Your task to perform on an android device: check the backup settings in the google photos Image 0: 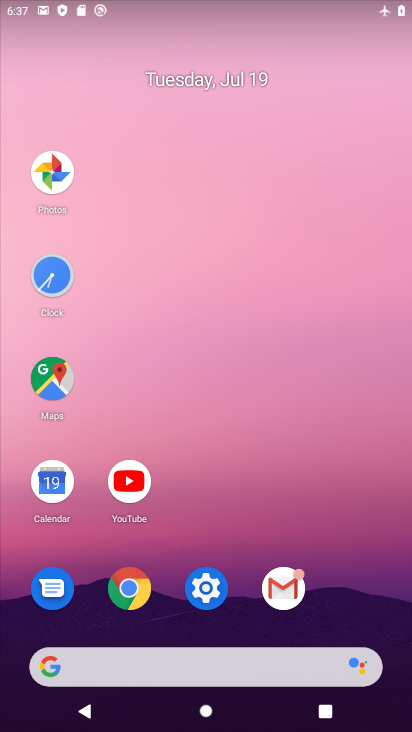
Step 0: click (46, 171)
Your task to perform on an android device: check the backup settings in the google photos Image 1: 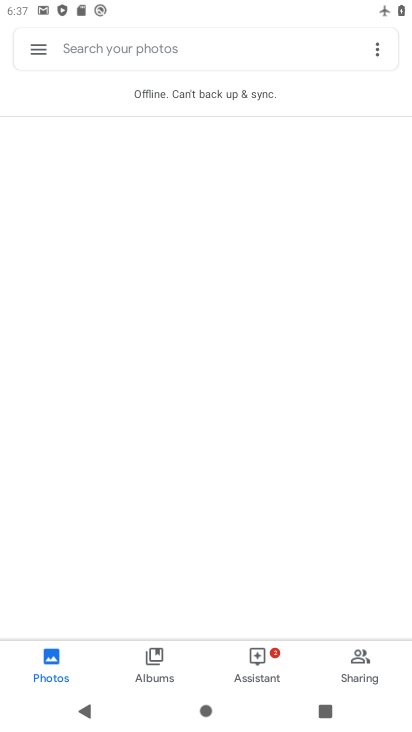
Step 1: click (37, 39)
Your task to perform on an android device: check the backup settings in the google photos Image 2: 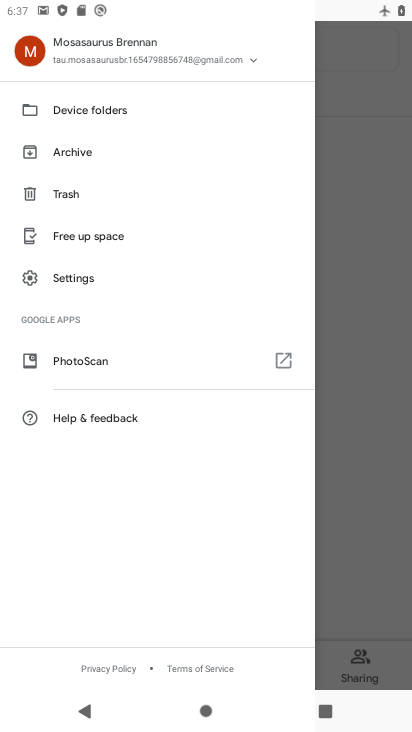
Step 2: click (78, 278)
Your task to perform on an android device: check the backup settings in the google photos Image 3: 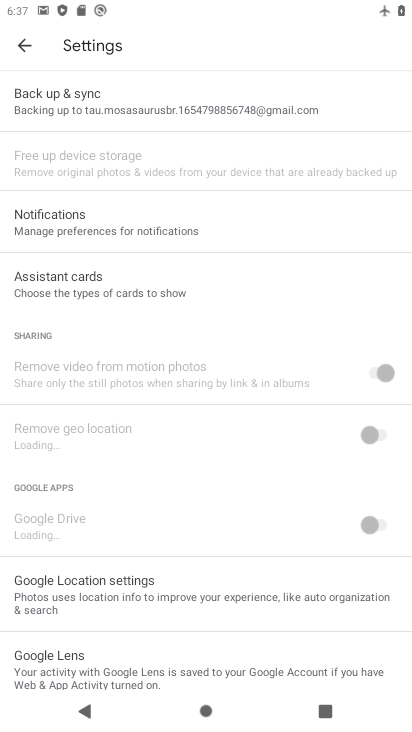
Step 3: click (43, 88)
Your task to perform on an android device: check the backup settings in the google photos Image 4: 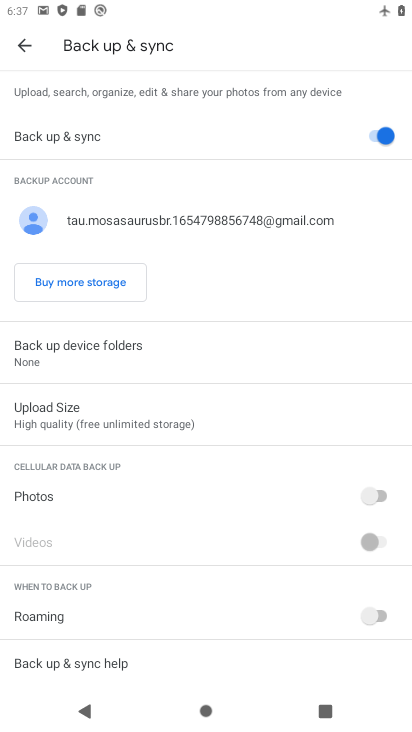
Step 4: task complete